Your task to perform on an android device: toggle improve location accuracy Image 0: 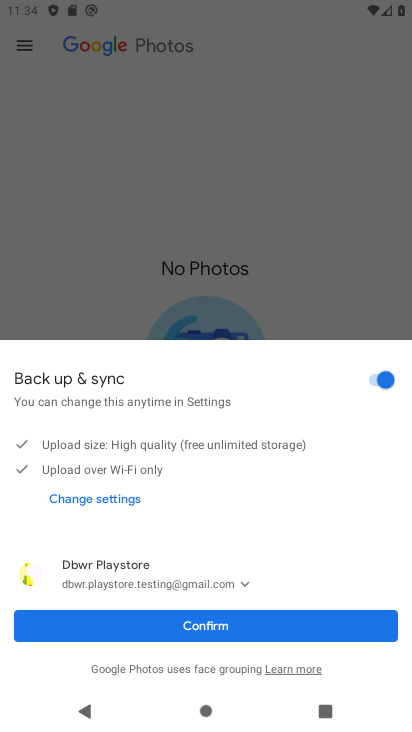
Step 0: press home button
Your task to perform on an android device: toggle improve location accuracy Image 1: 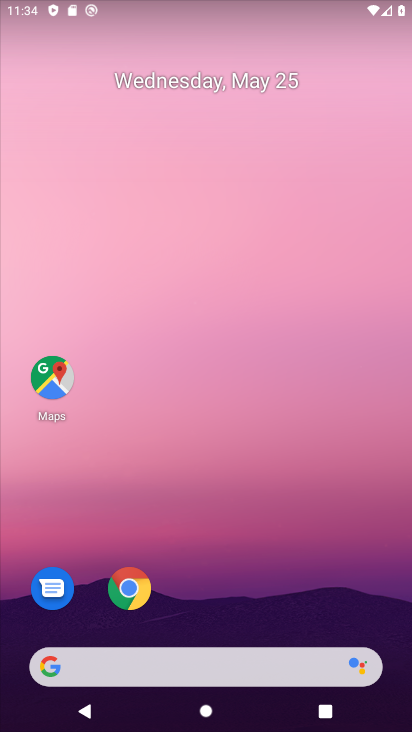
Step 1: drag from (186, 596) to (210, 194)
Your task to perform on an android device: toggle improve location accuracy Image 2: 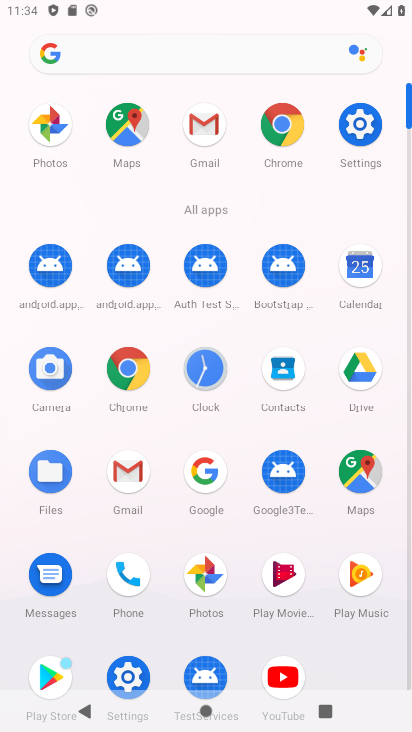
Step 2: click (358, 124)
Your task to perform on an android device: toggle improve location accuracy Image 3: 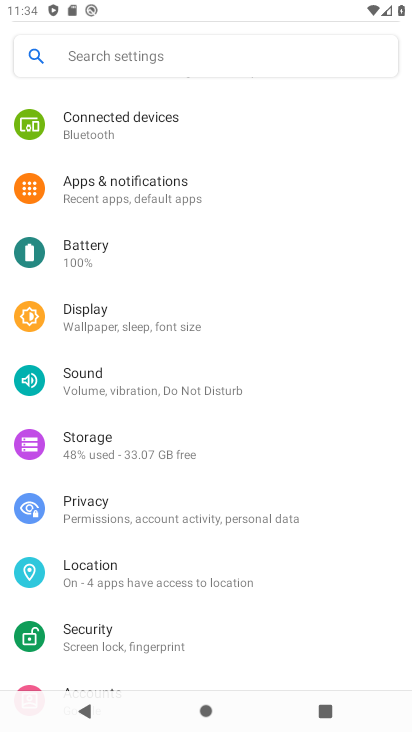
Step 3: click (100, 581)
Your task to perform on an android device: toggle improve location accuracy Image 4: 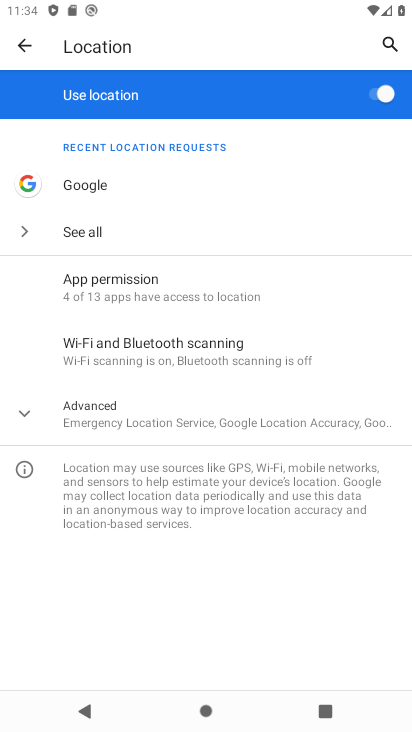
Step 4: click (28, 411)
Your task to perform on an android device: toggle improve location accuracy Image 5: 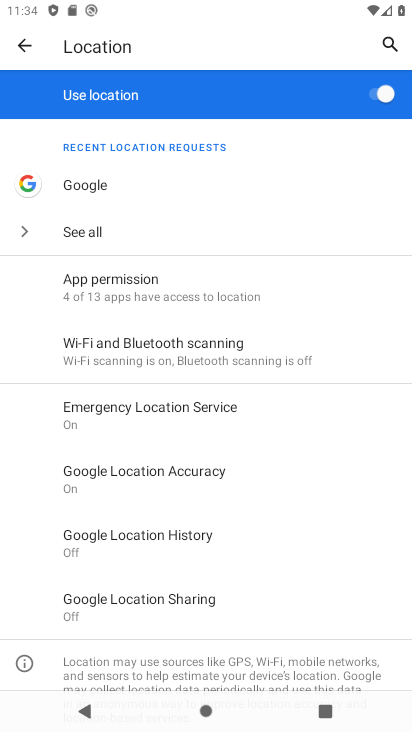
Step 5: click (151, 476)
Your task to perform on an android device: toggle improve location accuracy Image 6: 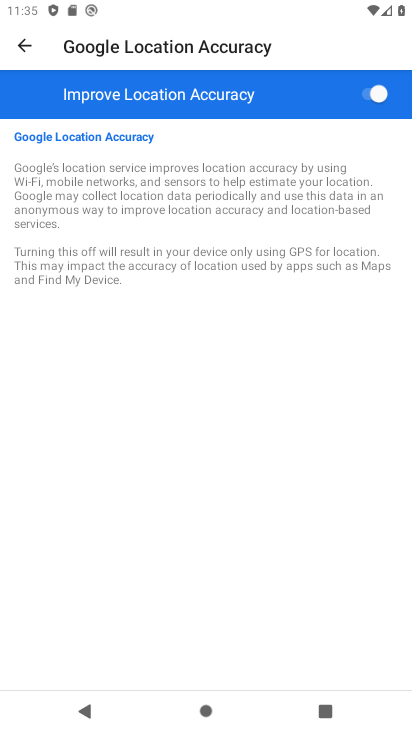
Step 6: click (365, 103)
Your task to perform on an android device: toggle improve location accuracy Image 7: 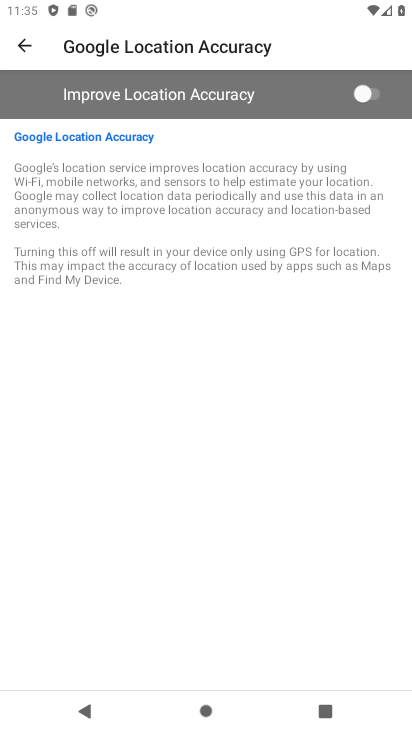
Step 7: task complete